Your task to perform on an android device: Do I have any events this weekend? Image 0: 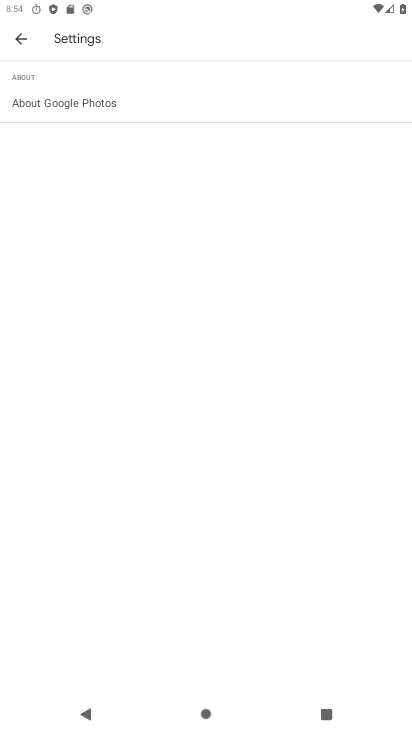
Step 0: press home button
Your task to perform on an android device: Do I have any events this weekend? Image 1: 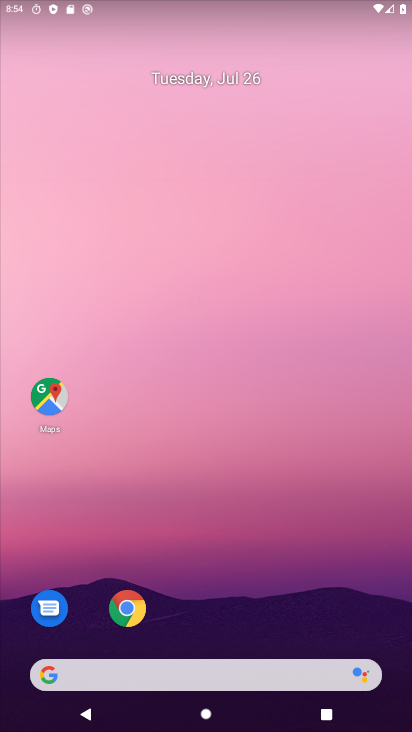
Step 1: drag from (272, 625) to (201, 112)
Your task to perform on an android device: Do I have any events this weekend? Image 2: 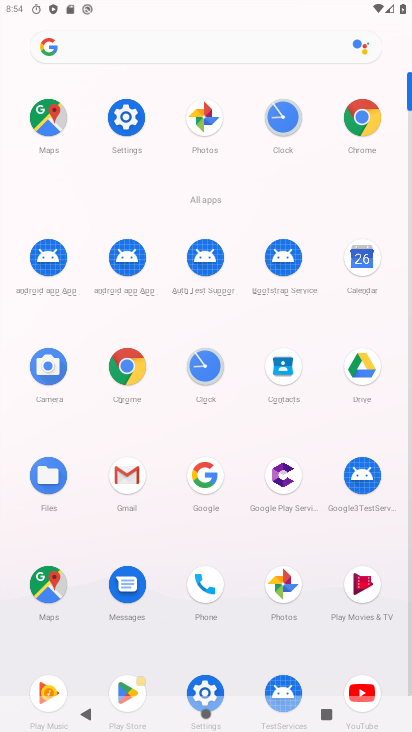
Step 2: click (372, 272)
Your task to perform on an android device: Do I have any events this weekend? Image 3: 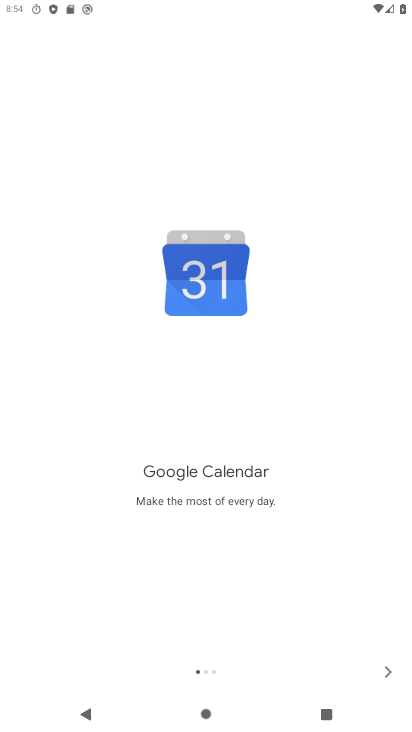
Step 3: click (389, 667)
Your task to perform on an android device: Do I have any events this weekend? Image 4: 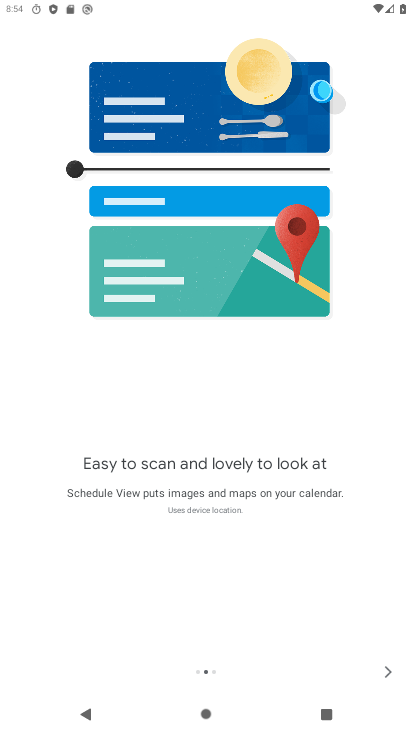
Step 4: click (389, 667)
Your task to perform on an android device: Do I have any events this weekend? Image 5: 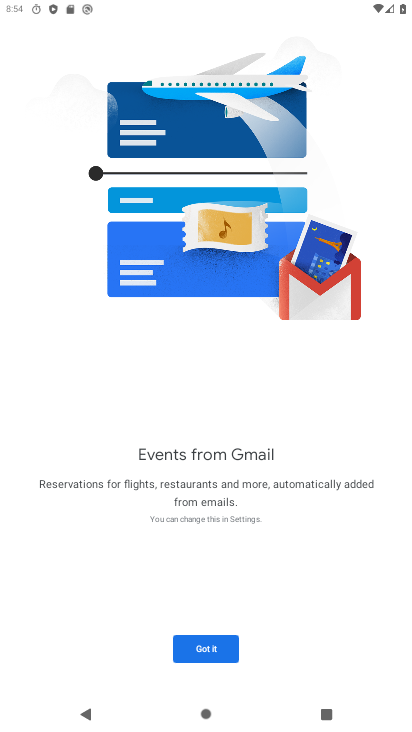
Step 5: click (198, 648)
Your task to perform on an android device: Do I have any events this weekend? Image 6: 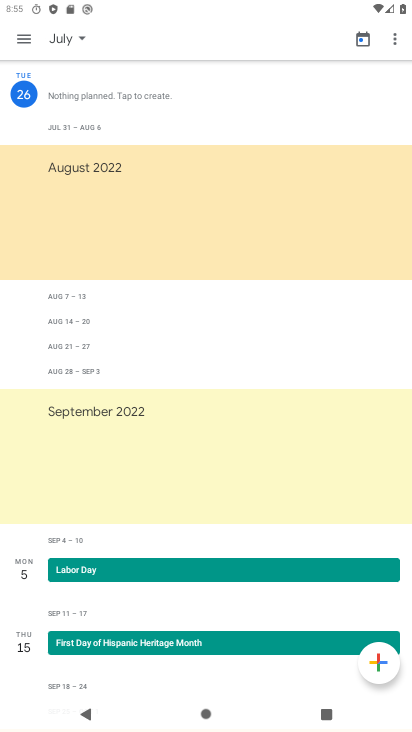
Step 6: click (22, 39)
Your task to perform on an android device: Do I have any events this weekend? Image 7: 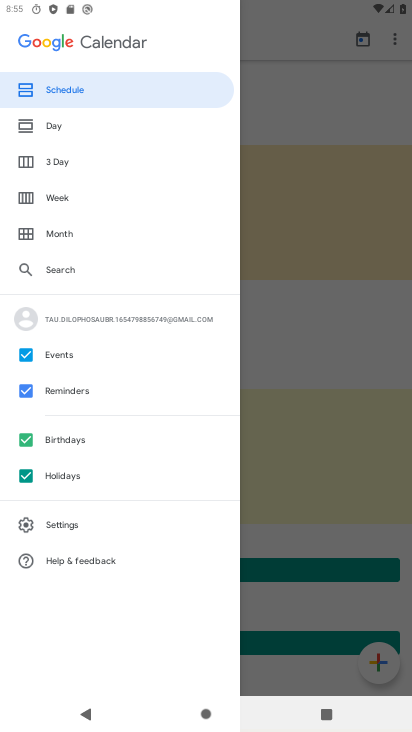
Step 7: click (89, 156)
Your task to perform on an android device: Do I have any events this weekend? Image 8: 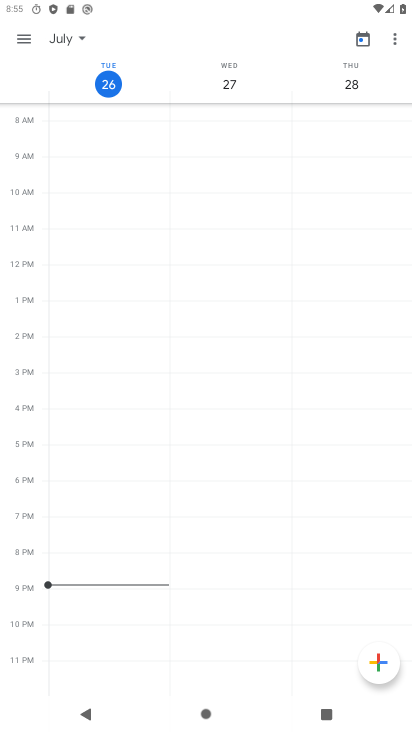
Step 8: click (76, 28)
Your task to perform on an android device: Do I have any events this weekend? Image 9: 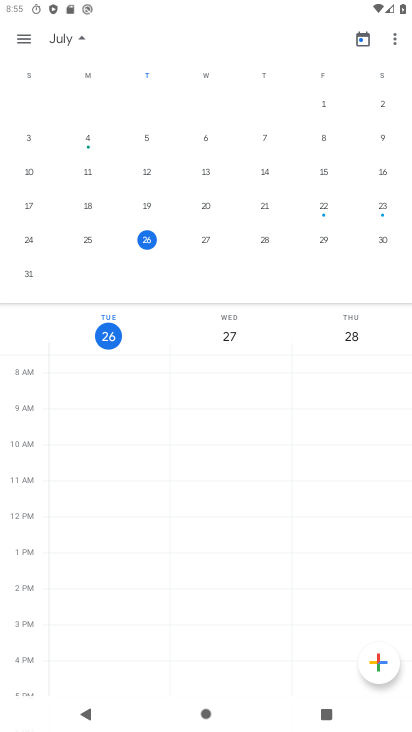
Step 9: click (328, 239)
Your task to perform on an android device: Do I have any events this weekend? Image 10: 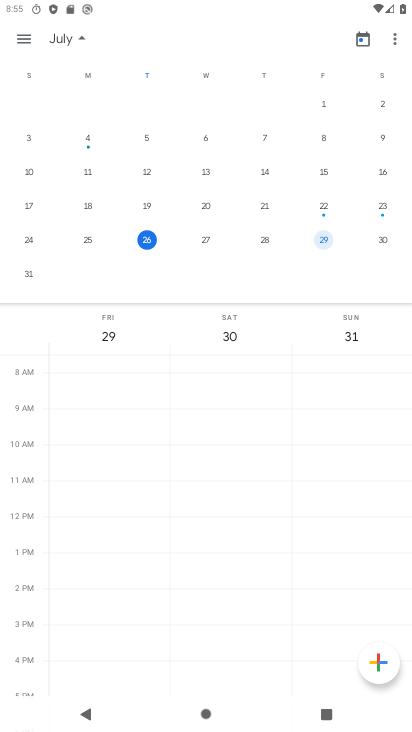
Step 10: task complete